Your task to perform on an android device: find which apps use the phone's location Image 0: 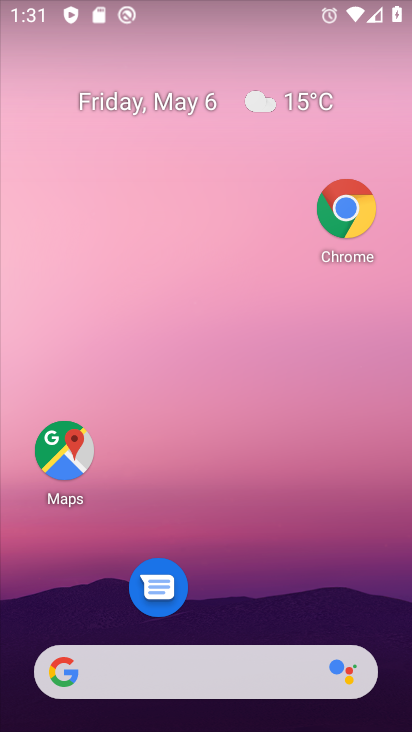
Step 0: drag from (298, 573) to (198, 63)
Your task to perform on an android device: find which apps use the phone's location Image 1: 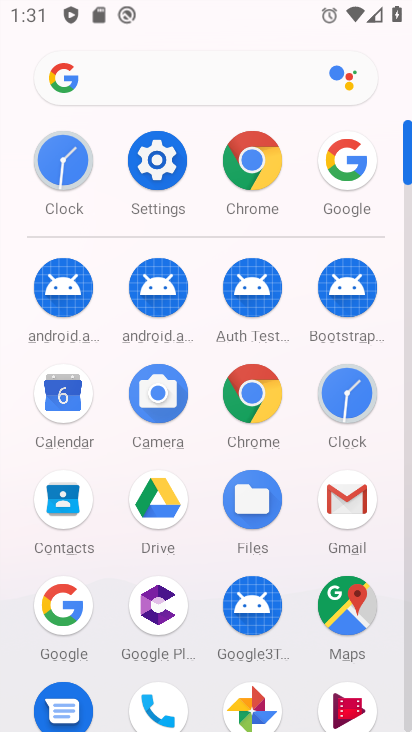
Step 1: click (157, 211)
Your task to perform on an android device: find which apps use the phone's location Image 2: 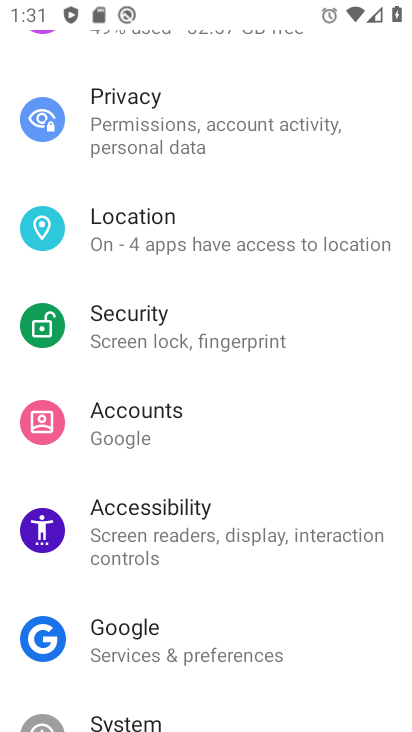
Step 2: drag from (180, 545) to (176, 215)
Your task to perform on an android device: find which apps use the phone's location Image 3: 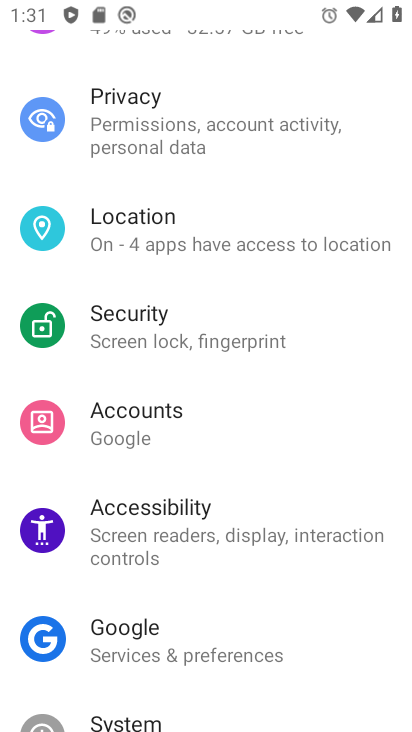
Step 3: drag from (169, 662) to (190, 195)
Your task to perform on an android device: find which apps use the phone's location Image 4: 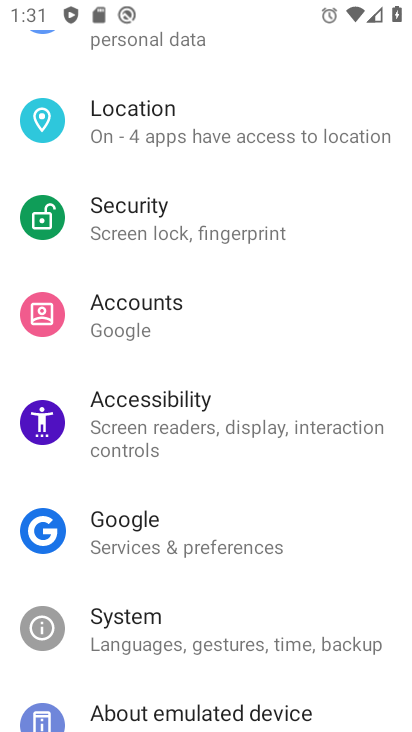
Step 4: click (137, 121)
Your task to perform on an android device: find which apps use the phone's location Image 5: 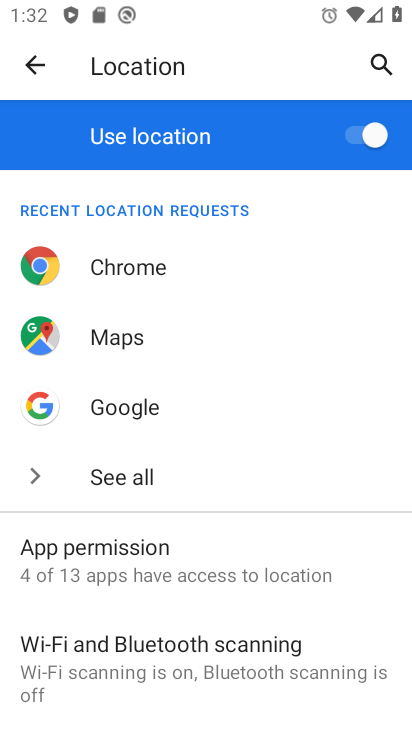
Step 5: task complete